Your task to perform on an android device: check the backup settings in the google photos Image 0: 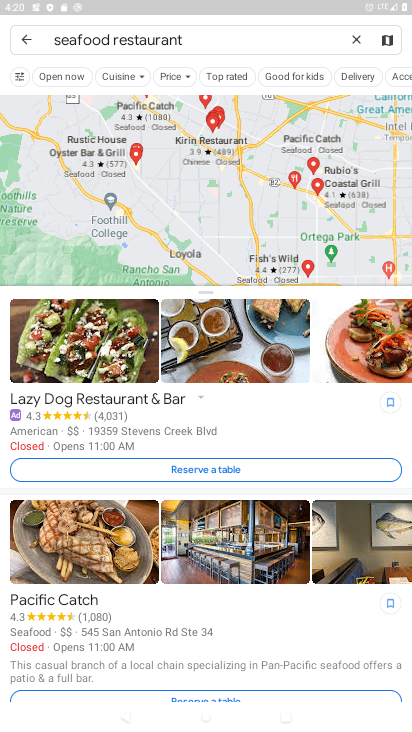
Step 0: press home button
Your task to perform on an android device: check the backup settings in the google photos Image 1: 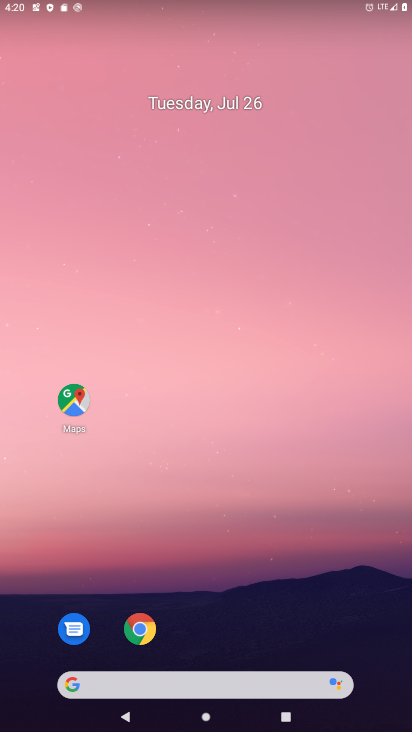
Step 1: drag from (227, 724) to (226, 244)
Your task to perform on an android device: check the backup settings in the google photos Image 2: 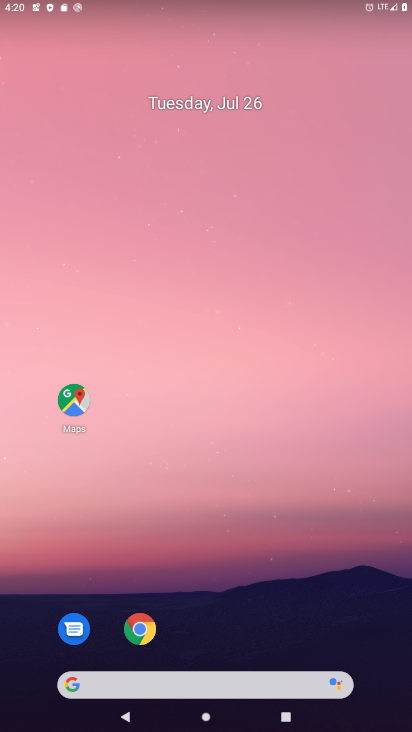
Step 2: drag from (225, 726) to (221, 107)
Your task to perform on an android device: check the backup settings in the google photos Image 3: 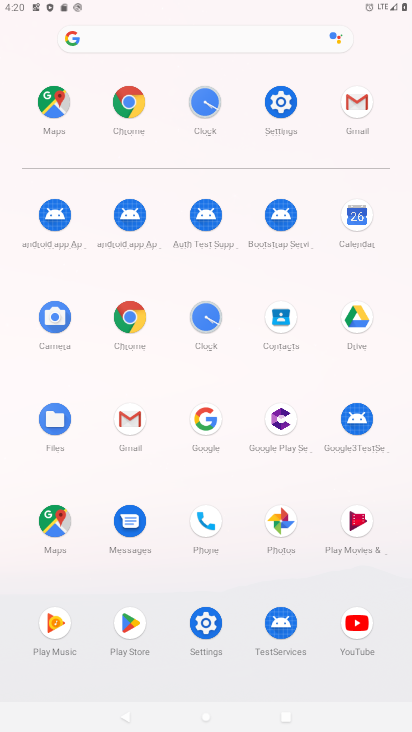
Step 3: click (284, 522)
Your task to perform on an android device: check the backup settings in the google photos Image 4: 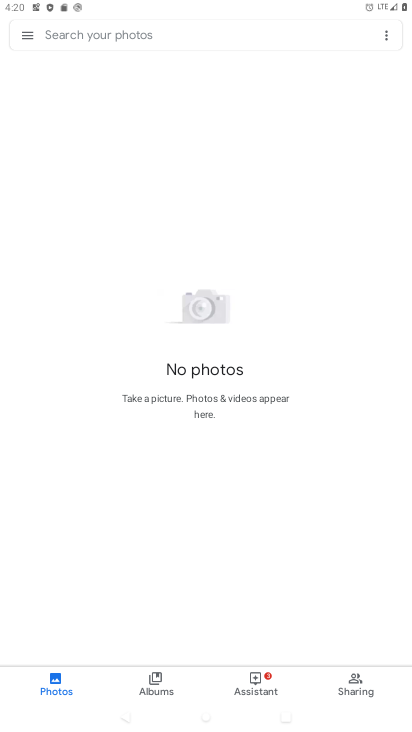
Step 4: click (25, 33)
Your task to perform on an android device: check the backup settings in the google photos Image 5: 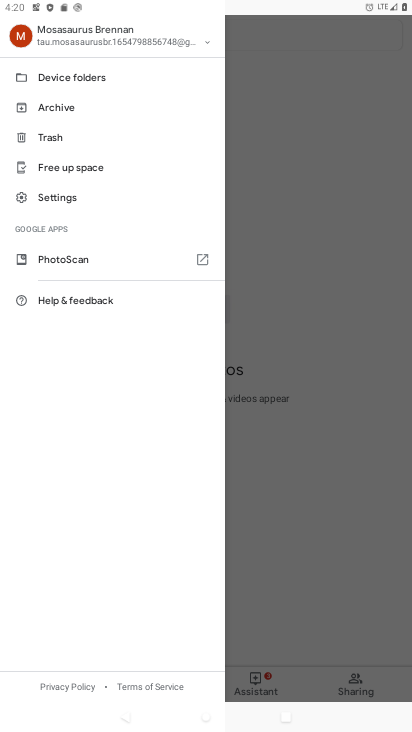
Step 5: click (53, 200)
Your task to perform on an android device: check the backup settings in the google photos Image 6: 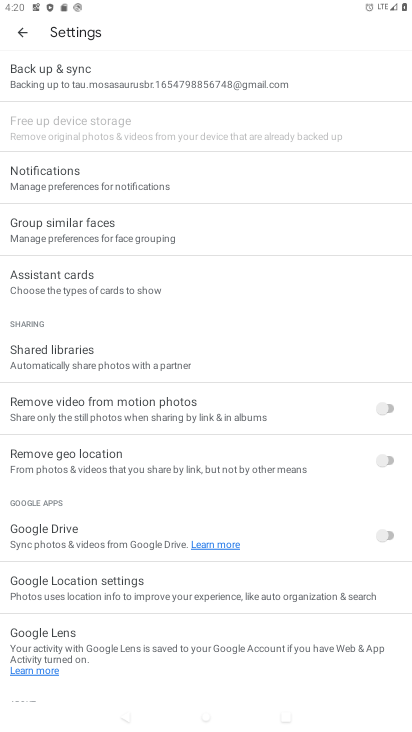
Step 6: click (92, 76)
Your task to perform on an android device: check the backup settings in the google photos Image 7: 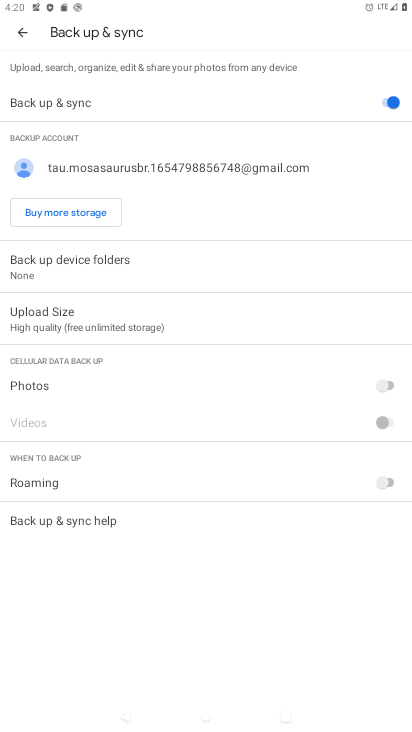
Step 7: task complete